Your task to perform on an android device: install app "Google Drive" Image 0: 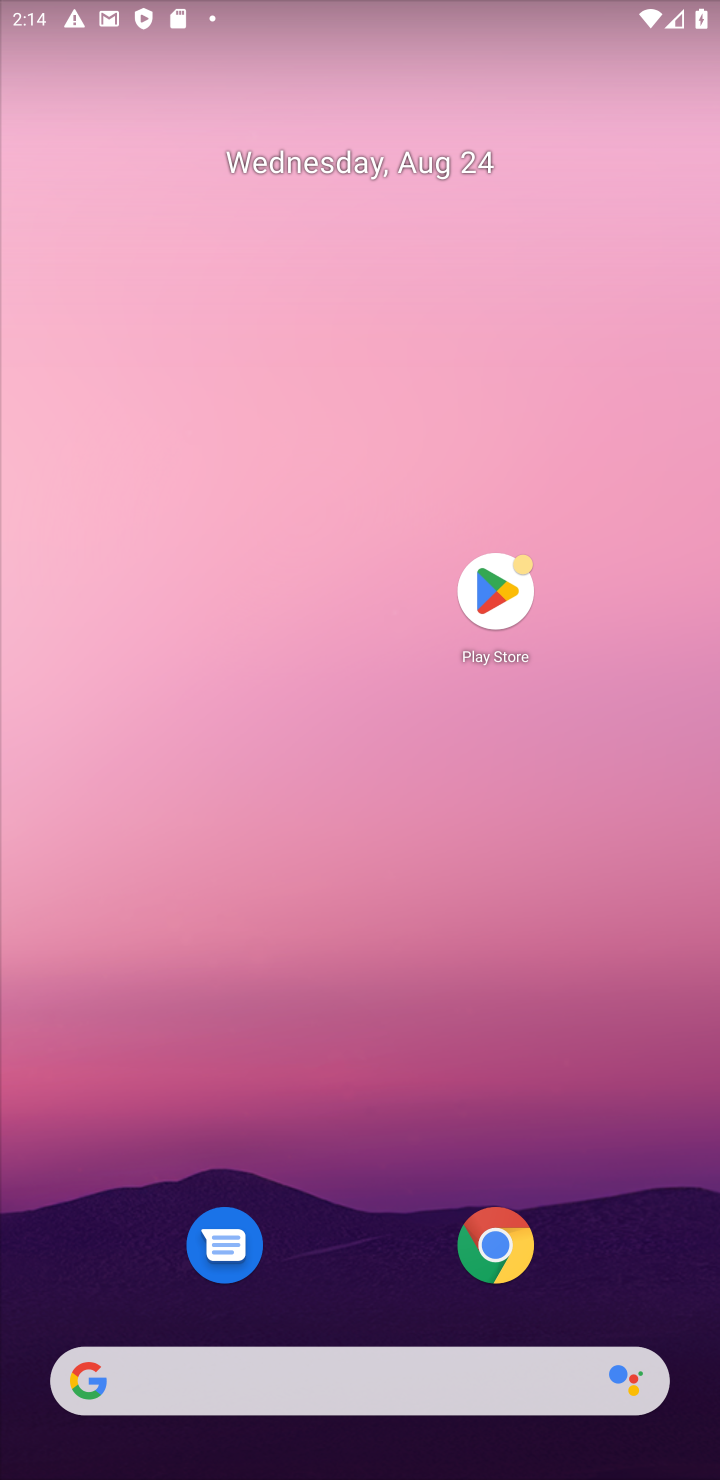
Step 0: click (476, 595)
Your task to perform on an android device: install app "Google Drive" Image 1: 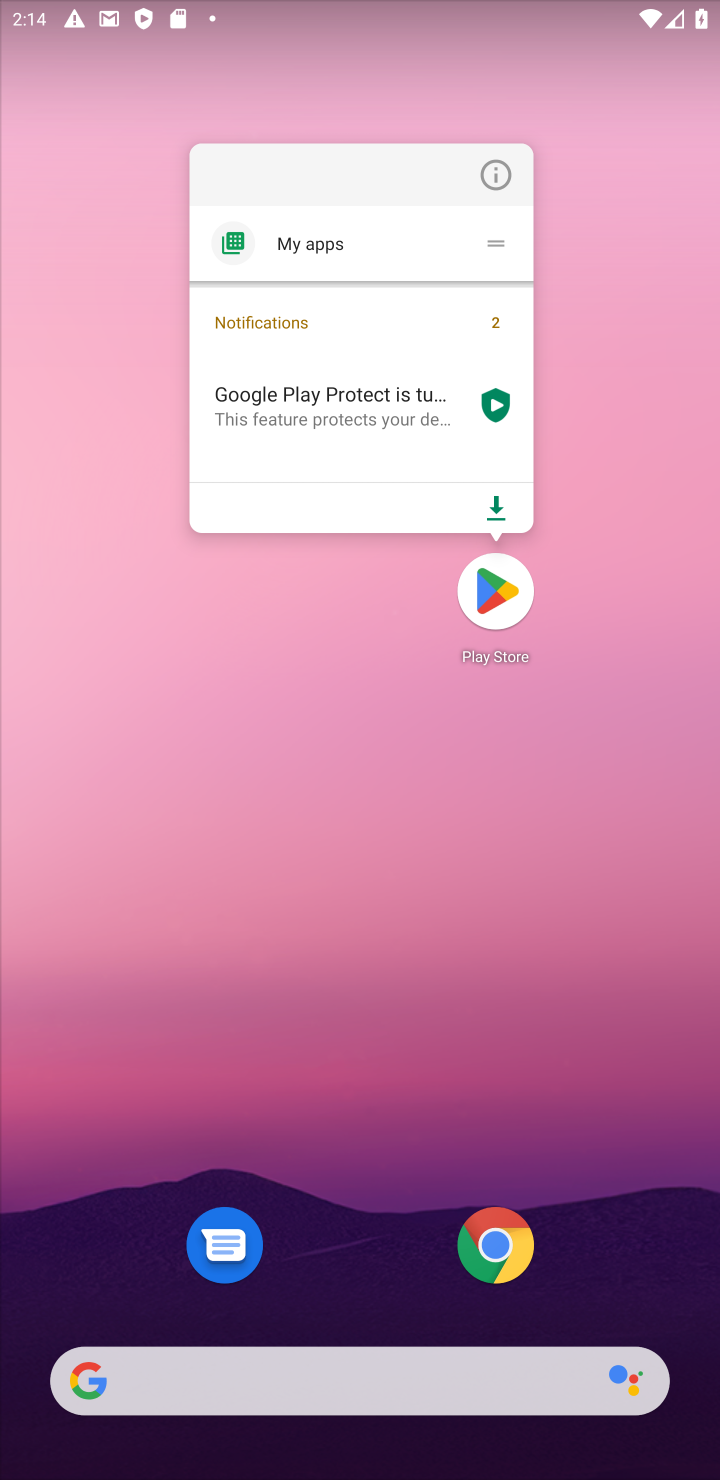
Step 1: click (476, 595)
Your task to perform on an android device: install app "Google Drive" Image 2: 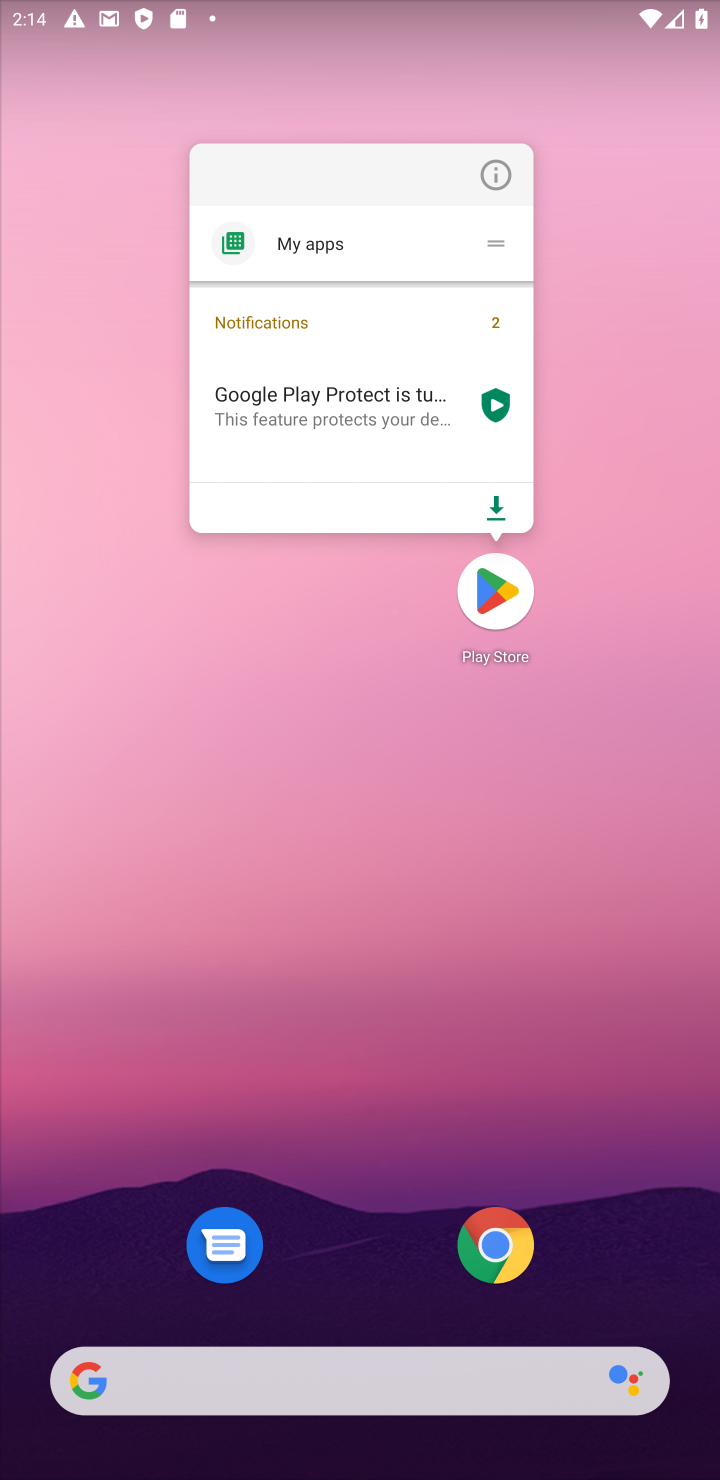
Step 2: click (476, 602)
Your task to perform on an android device: install app "Google Drive" Image 3: 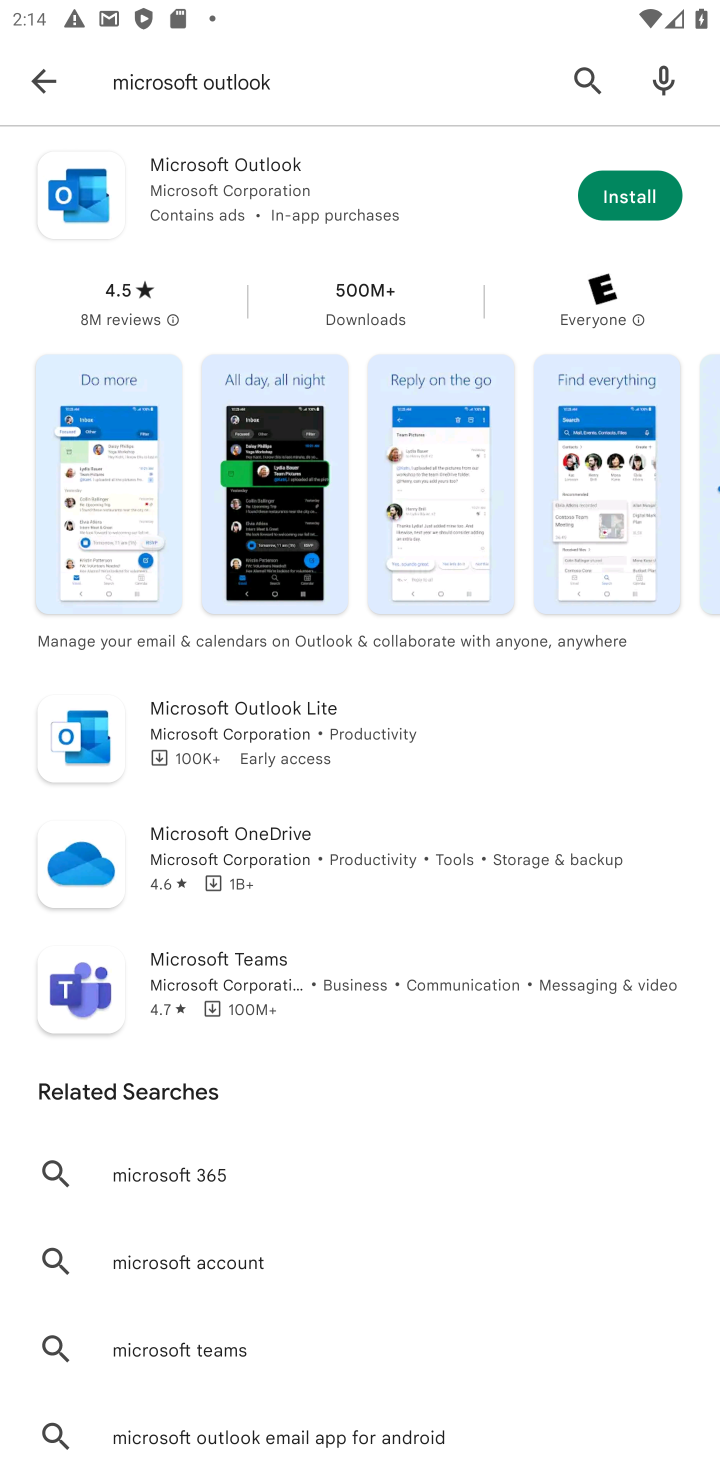
Step 3: click (579, 76)
Your task to perform on an android device: install app "Google Drive" Image 4: 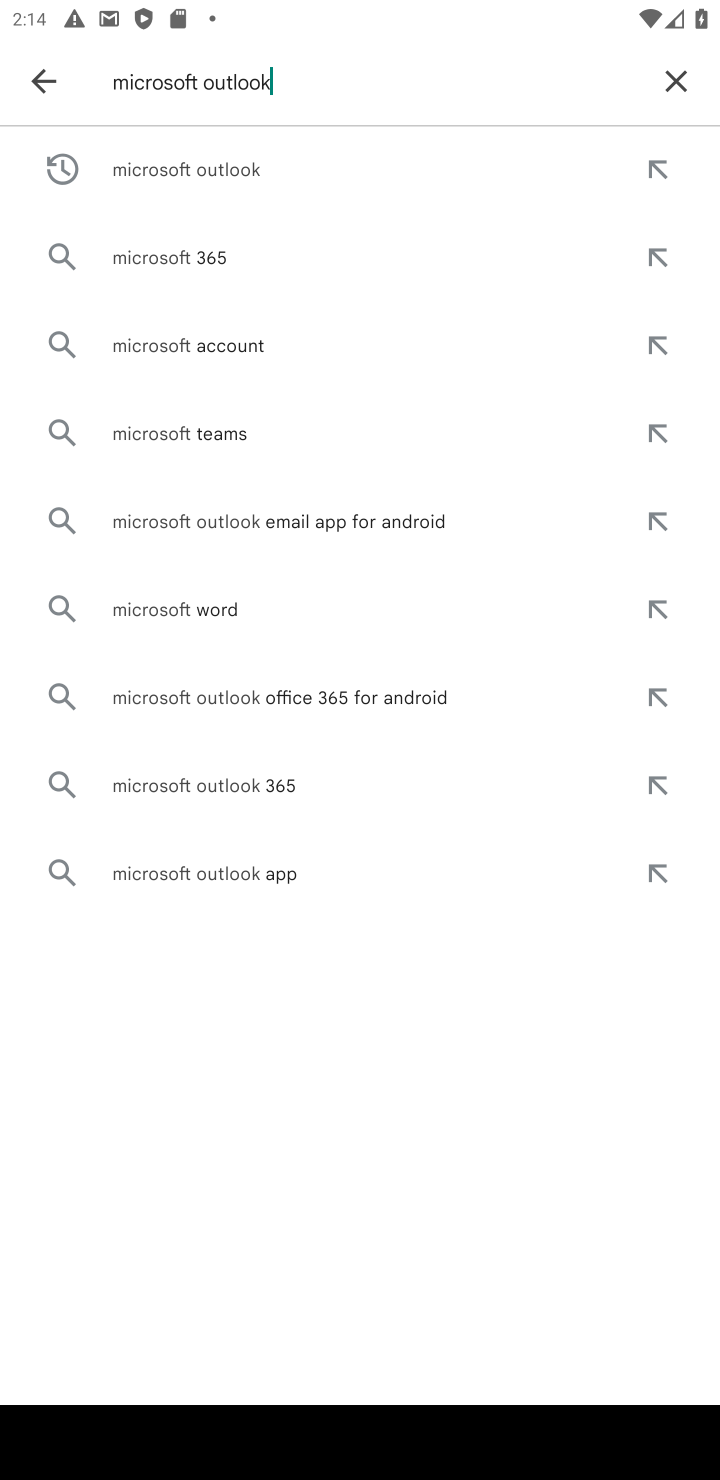
Step 4: click (682, 64)
Your task to perform on an android device: install app "Google Drive" Image 5: 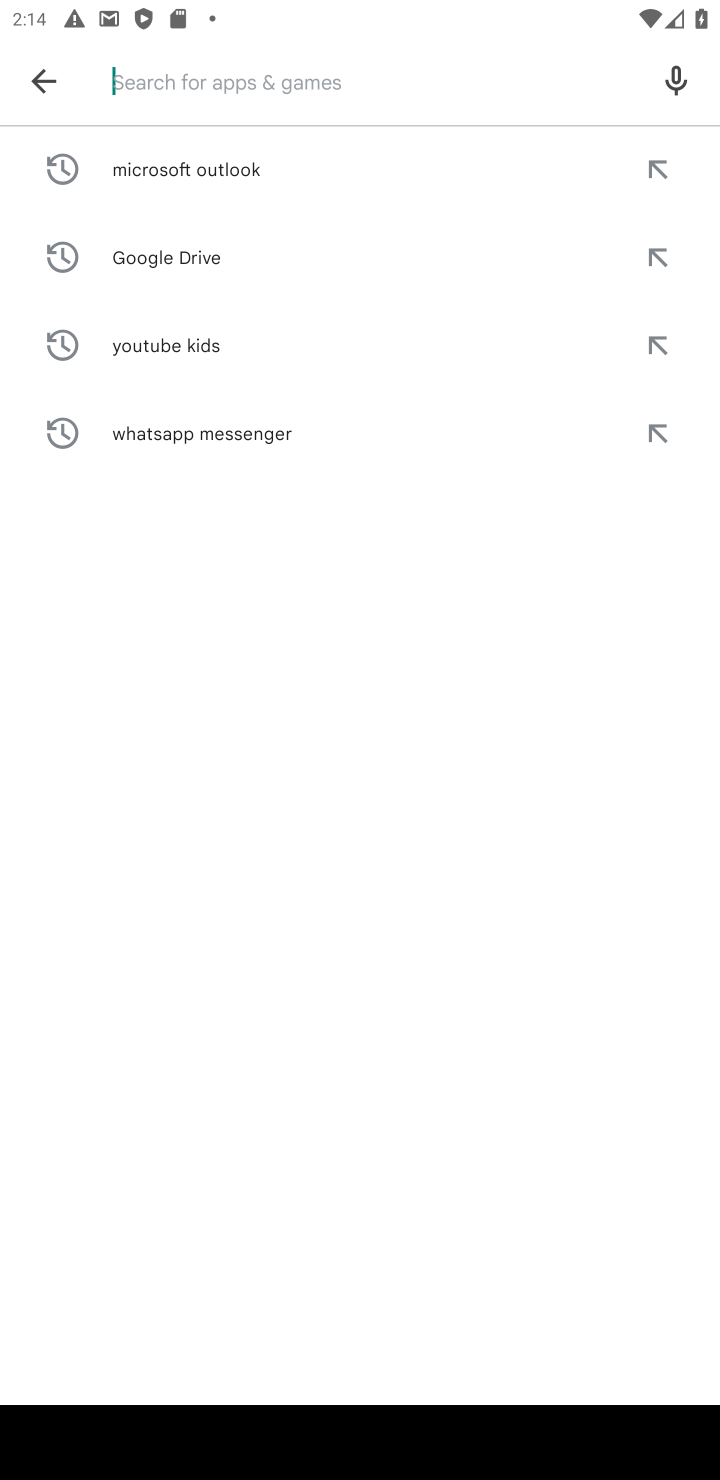
Step 5: type "Google Drive"
Your task to perform on an android device: install app "Google Drive" Image 6: 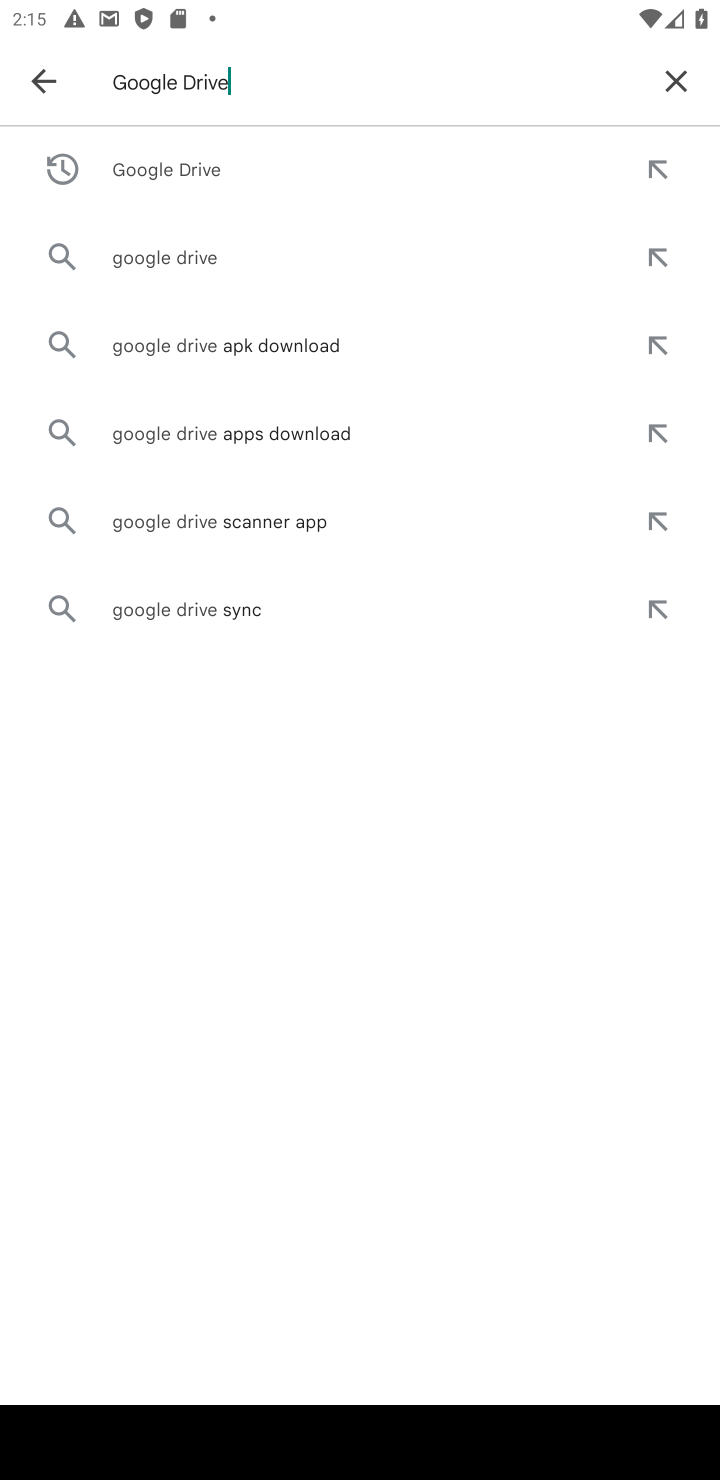
Step 6: click (225, 175)
Your task to perform on an android device: install app "Google Drive" Image 7: 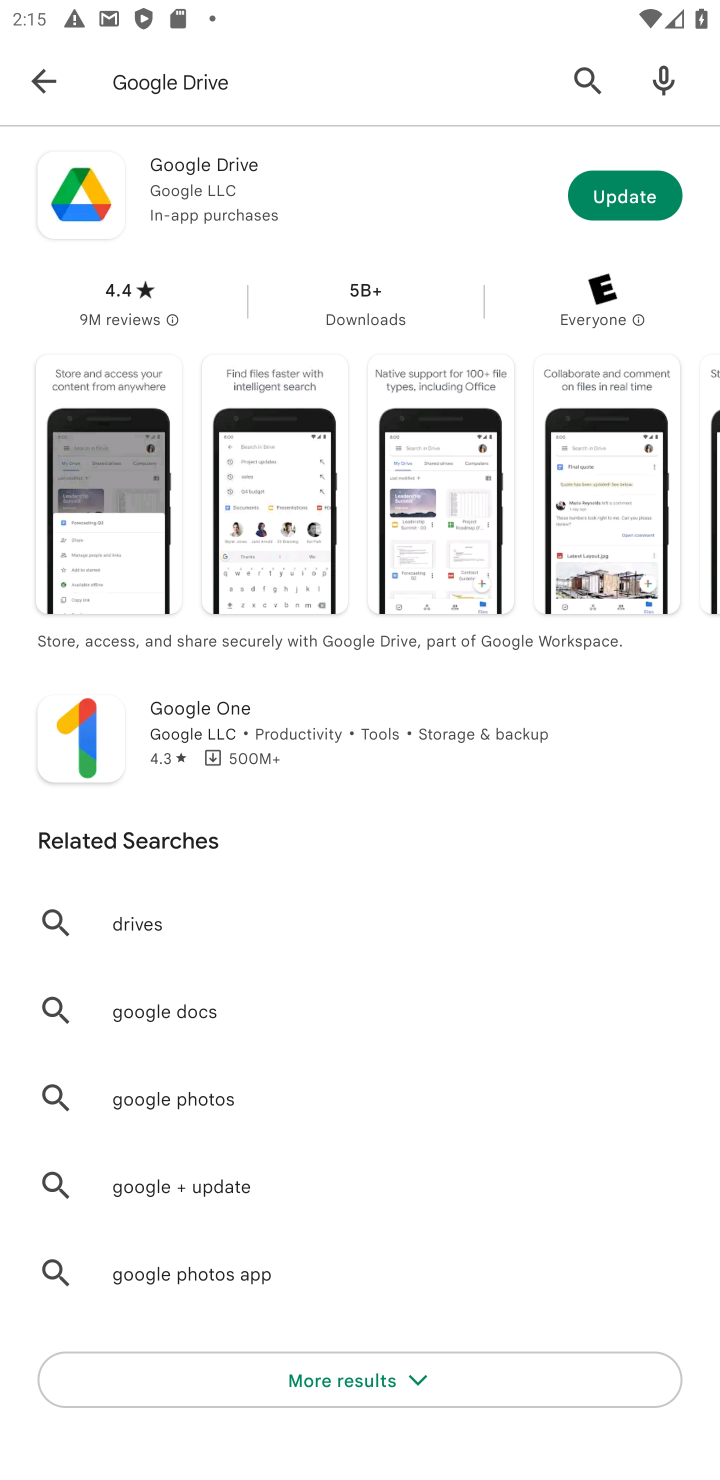
Step 7: click (144, 180)
Your task to perform on an android device: install app "Google Drive" Image 8: 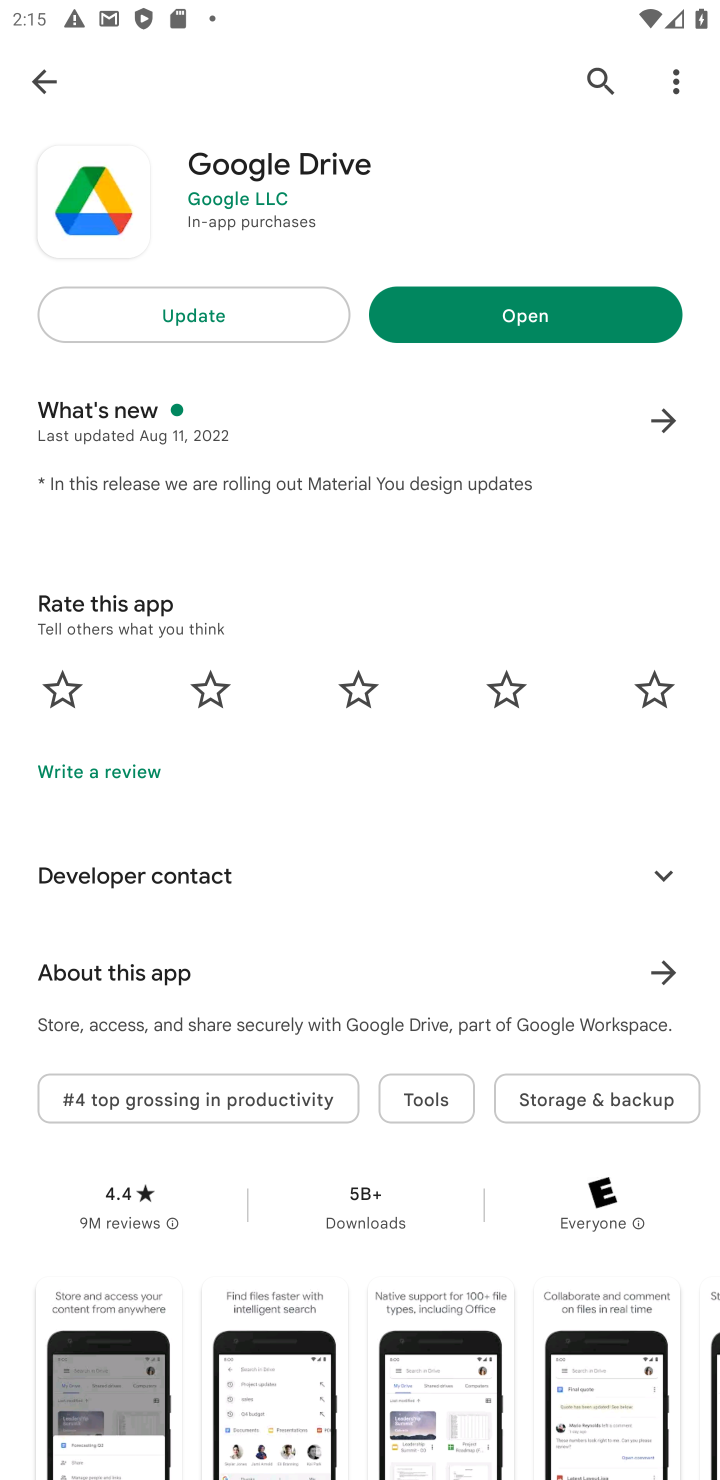
Step 8: task complete